Your task to perform on an android device: clear history in the chrome app Image 0: 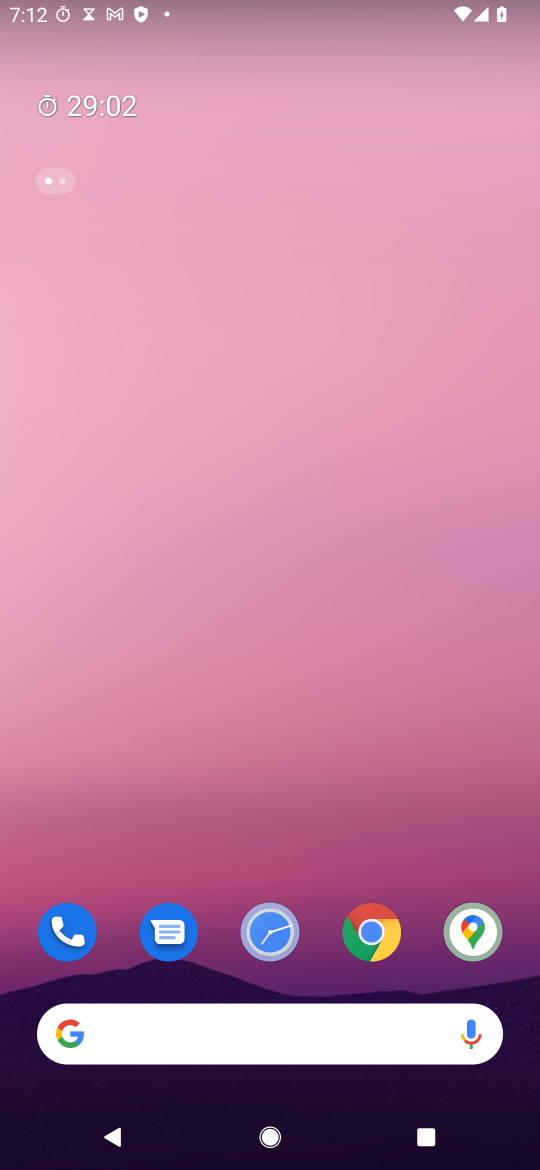
Step 0: drag from (297, 797) to (342, 99)
Your task to perform on an android device: clear history in the chrome app Image 1: 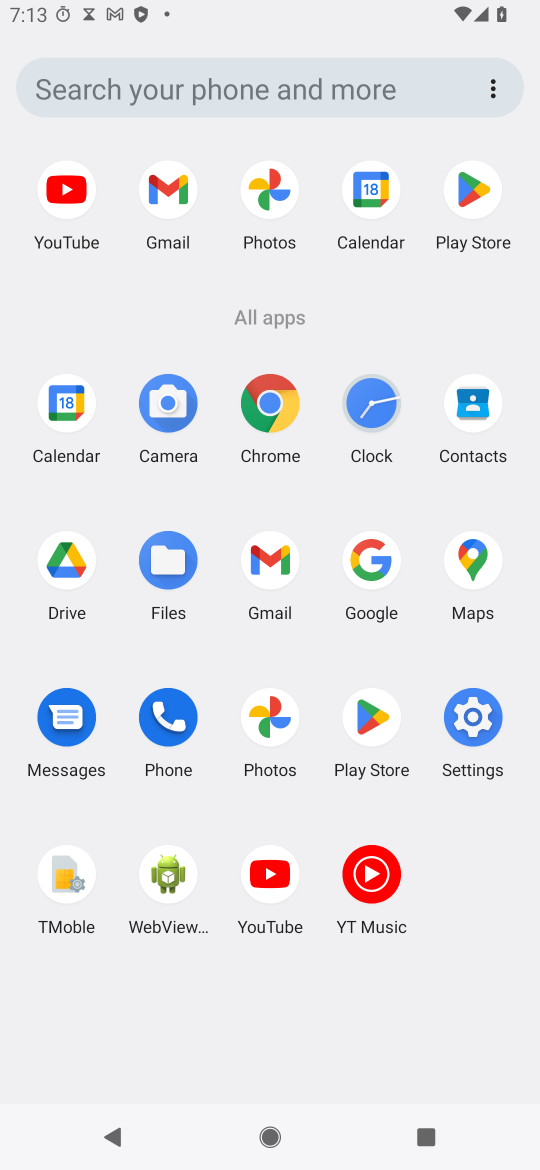
Step 1: click (268, 407)
Your task to perform on an android device: clear history in the chrome app Image 2: 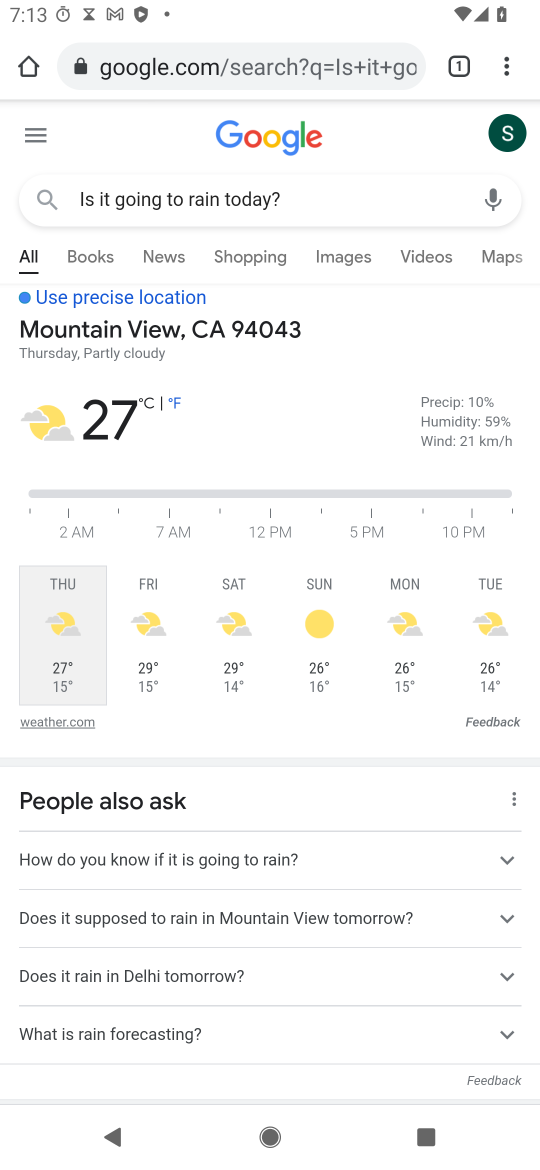
Step 2: drag from (502, 60) to (339, 880)
Your task to perform on an android device: clear history in the chrome app Image 3: 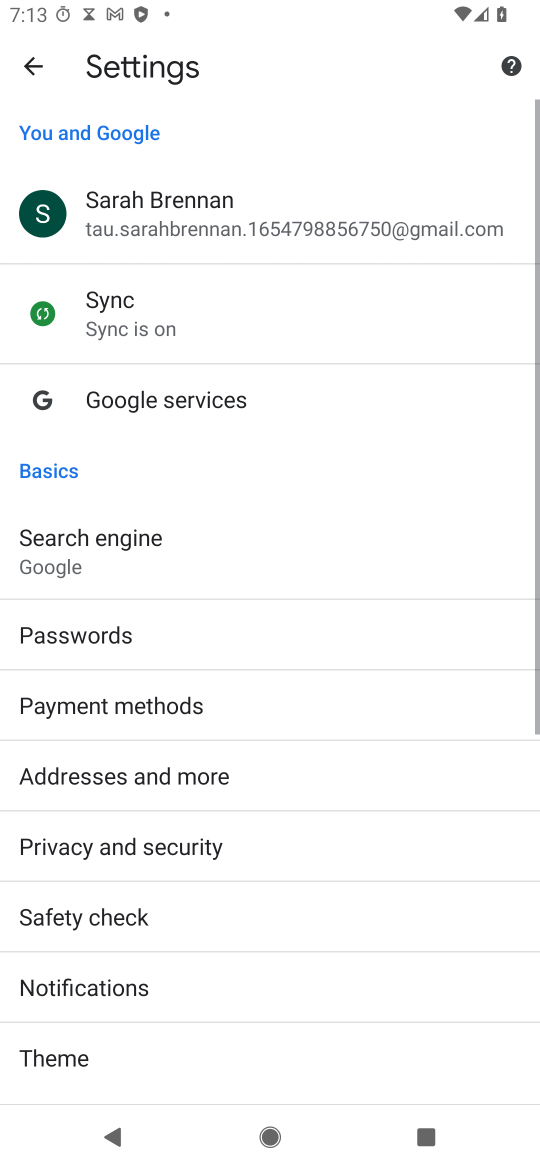
Step 3: drag from (327, 908) to (312, 101)
Your task to perform on an android device: clear history in the chrome app Image 4: 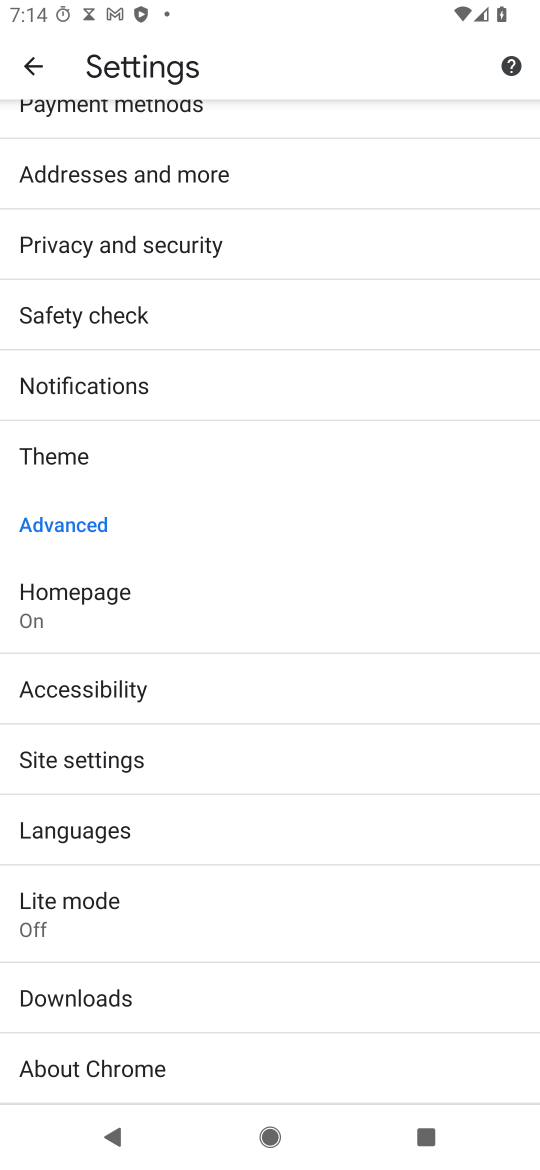
Step 4: drag from (156, 939) to (183, 243)
Your task to perform on an android device: clear history in the chrome app Image 5: 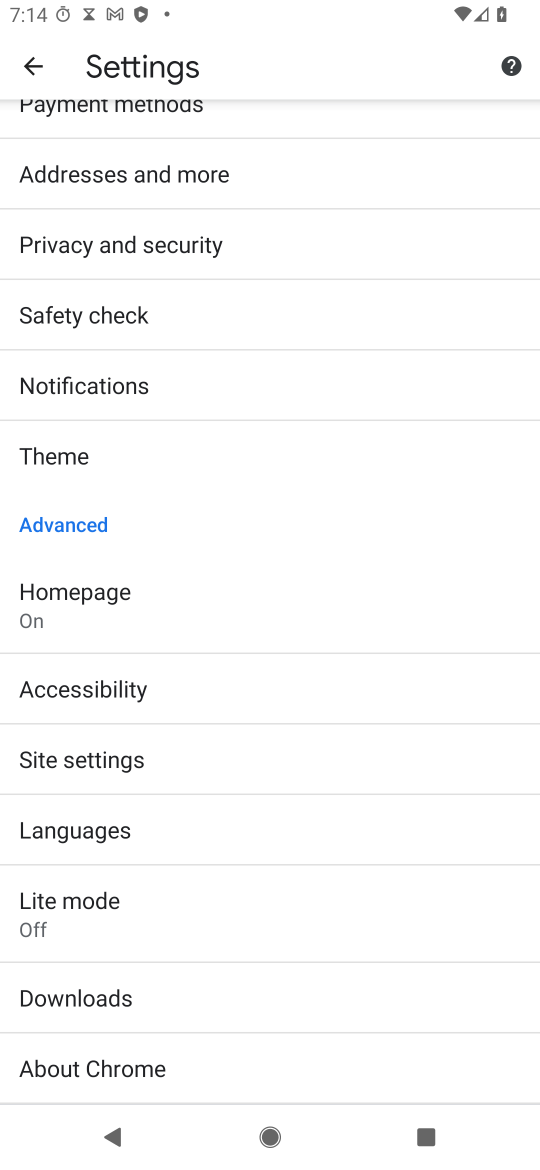
Step 5: click (183, 243)
Your task to perform on an android device: clear history in the chrome app Image 6: 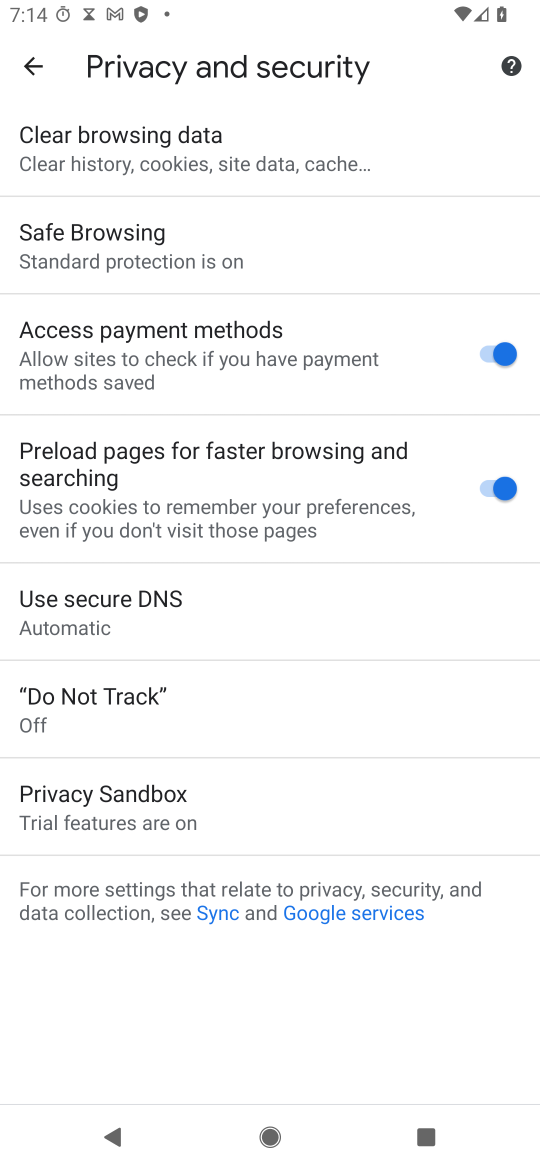
Step 6: press home button
Your task to perform on an android device: clear history in the chrome app Image 7: 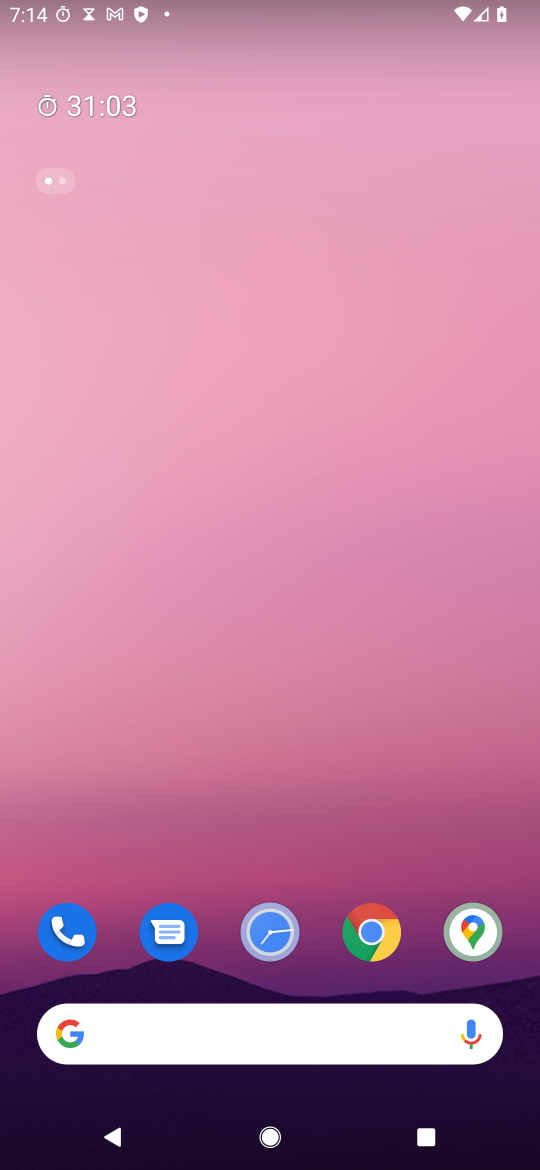
Step 7: drag from (339, 854) to (335, 107)
Your task to perform on an android device: clear history in the chrome app Image 8: 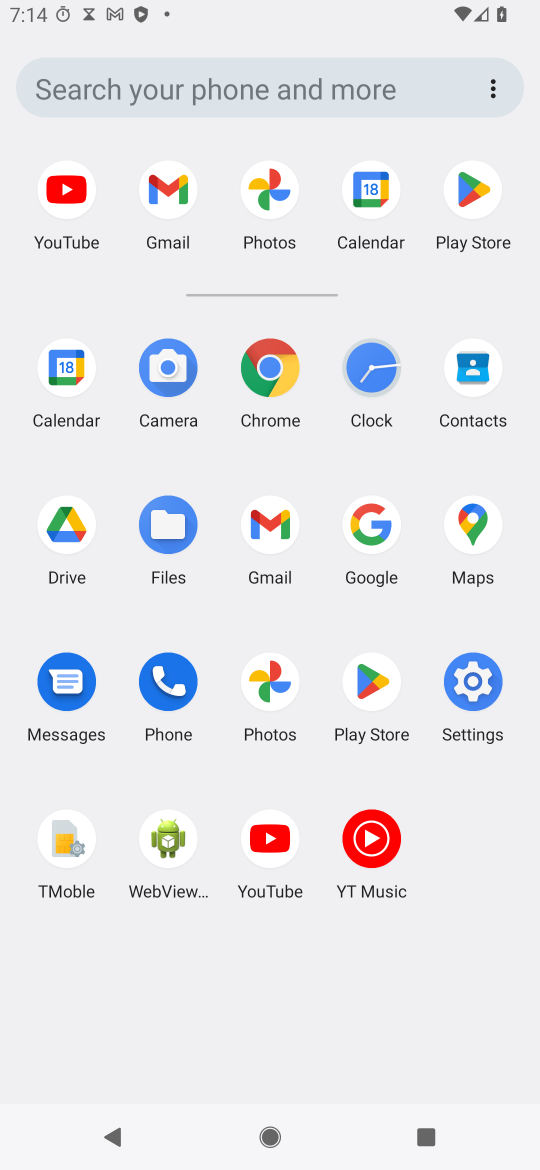
Step 8: click (263, 379)
Your task to perform on an android device: clear history in the chrome app Image 9: 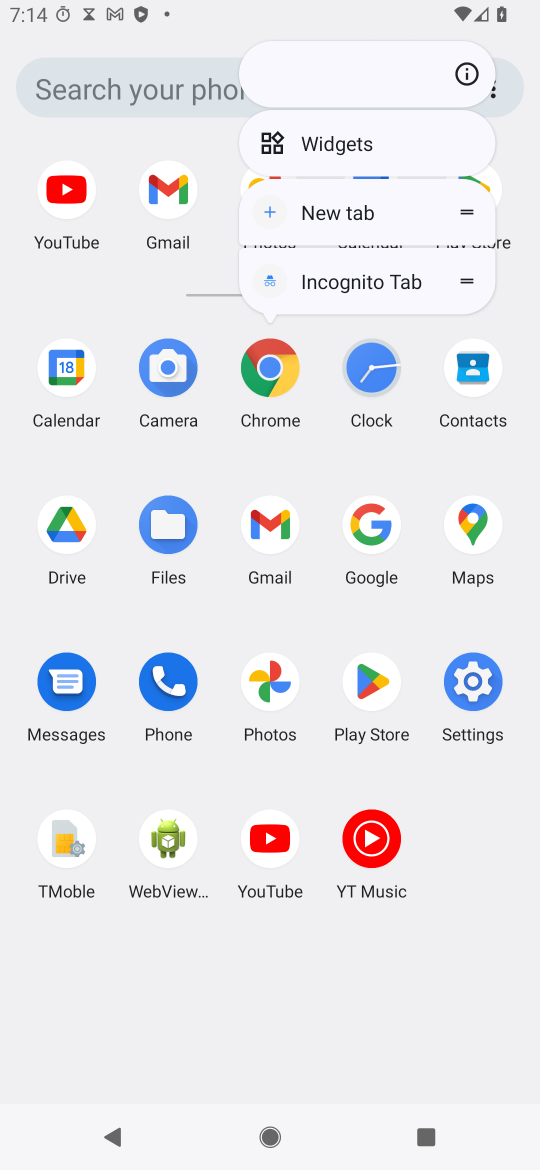
Step 9: click (263, 379)
Your task to perform on an android device: clear history in the chrome app Image 10: 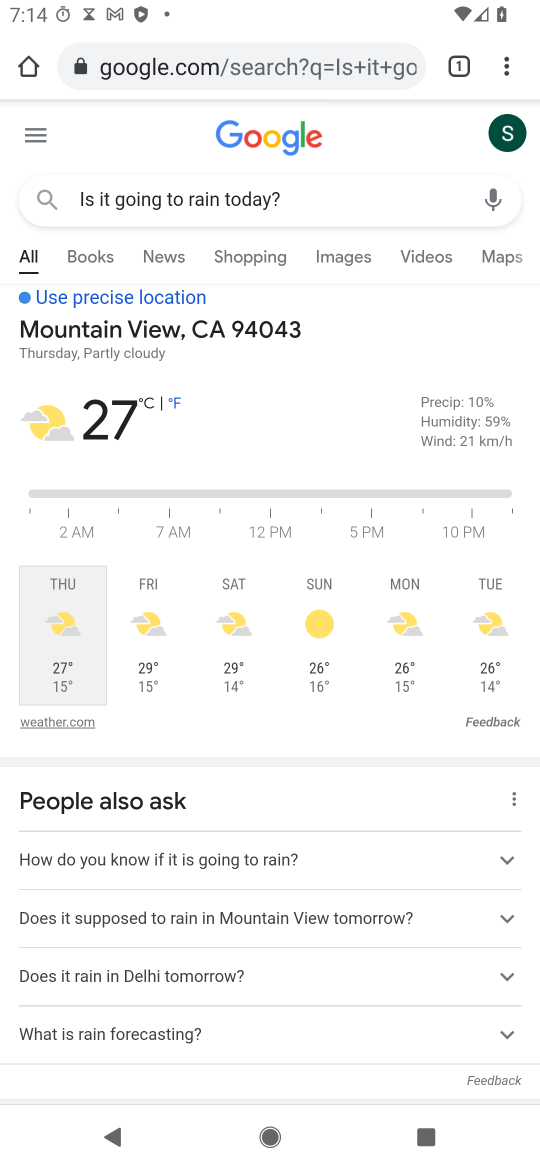
Step 10: task complete